Your task to perform on an android device: Is it going to rain tomorrow? Image 0: 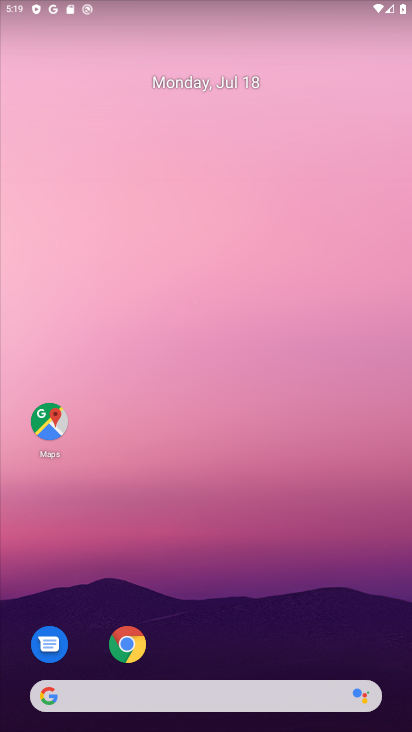
Step 0: press home button
Your task to perform on an android device: Is it going to rain tomorrow? Image 1: 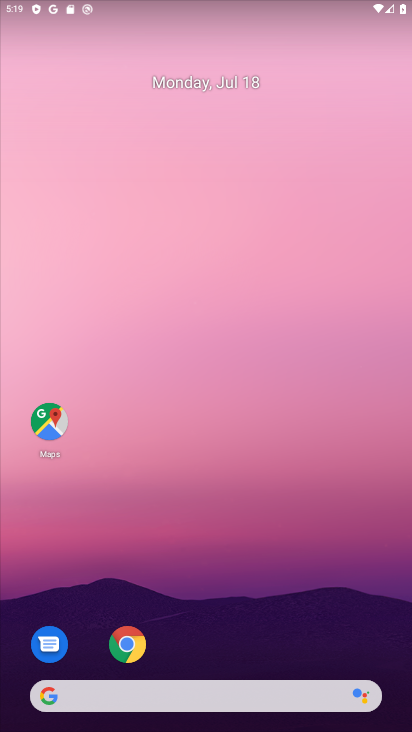
Step 1: click (40, 698)
Your task to perform on an android device: Is it going to rain tomorrow? Image 2: 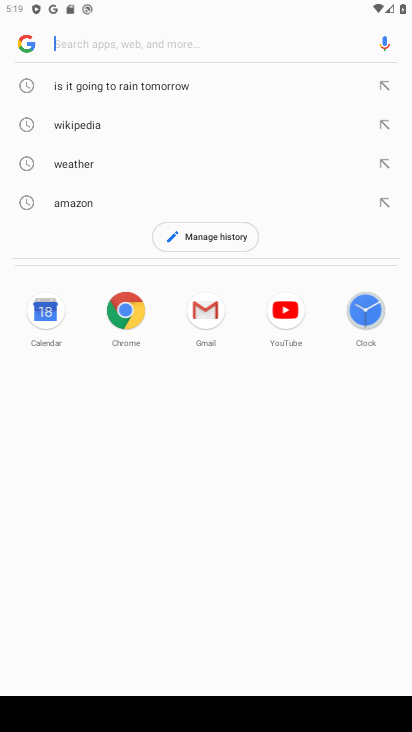
Step 2: type "Is it going to rain tomorrow"
Your task to perform on an android device: Is it going to rain tomorrow? Image 3: 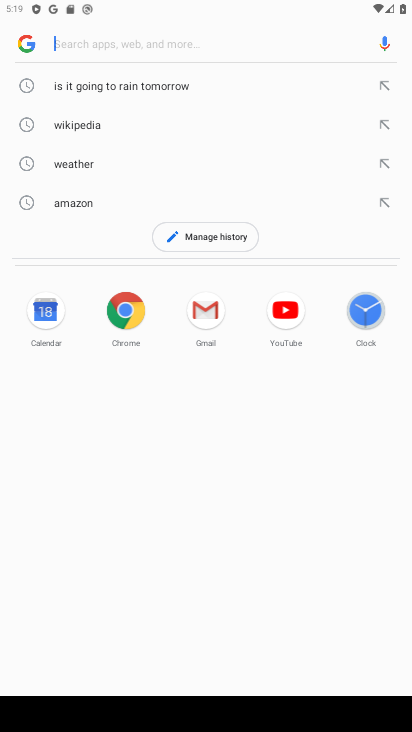
Step 3: click (104, 32)
Your task to perform on an android device: Is it going to rain tomorrow? Image 4: 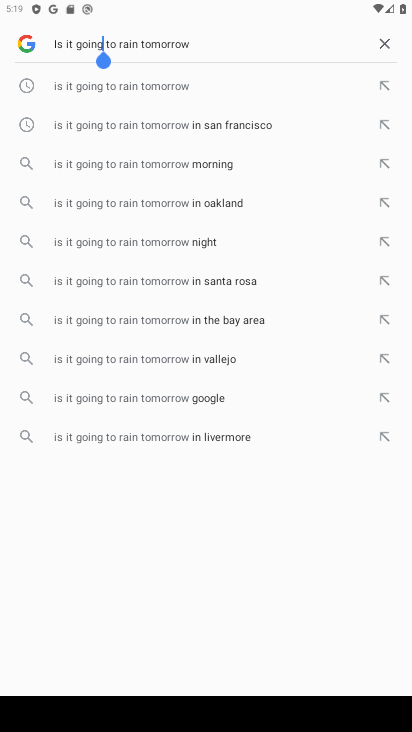
Step 4: press enter
Your task to perform on an android device: Is it going to rain tomorrow? Image 5: 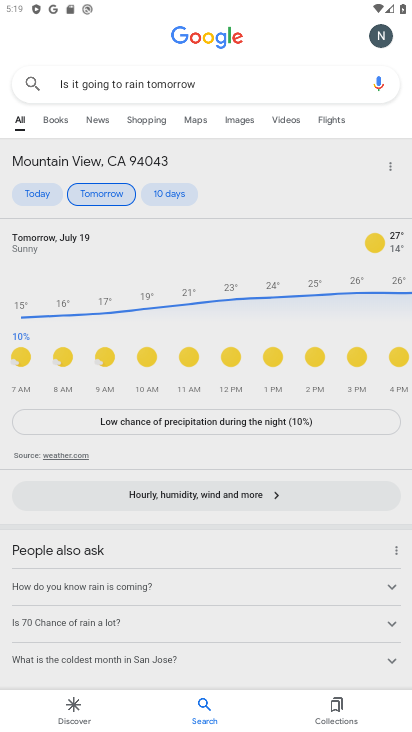
Step 5: task complete